Your task to perform on an android device: Open Amazon Image 0: 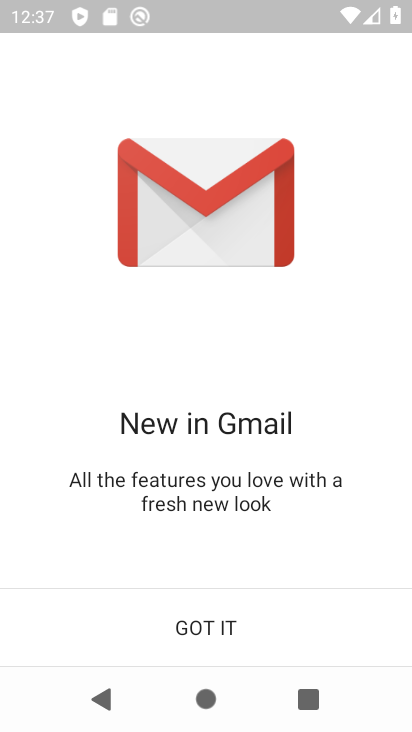
Step 0: press home button
Your task to perform on an android device: Open Amazon Image 1: 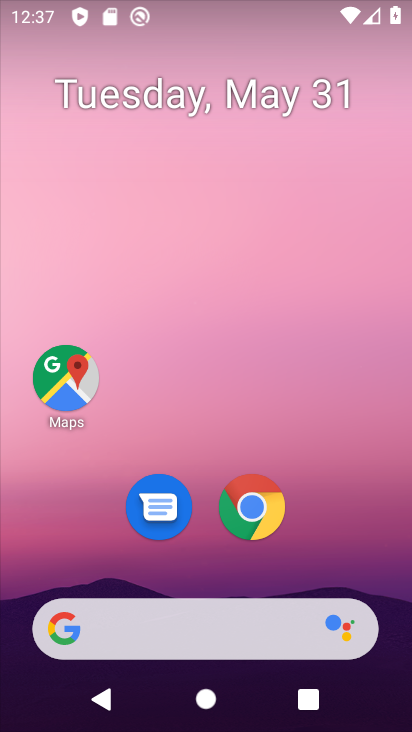
Step 1: click (254, 535)
Your task to perform on an android device: Open Amazon Image 2: 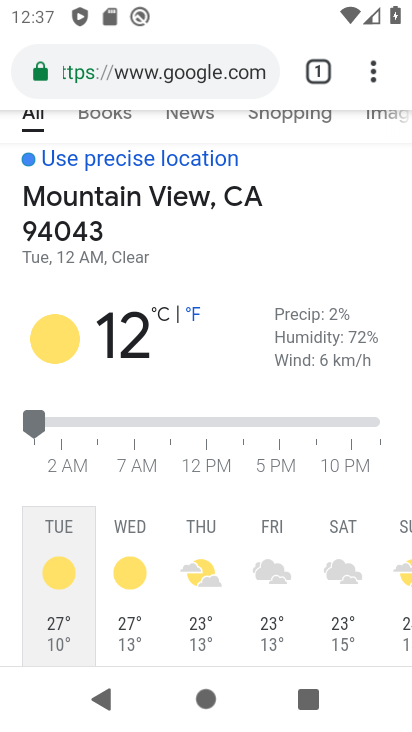
Step 2: drag from (378, 71) to (197, 143)
Your task to perform on an android device: Open Amazon Image 3: 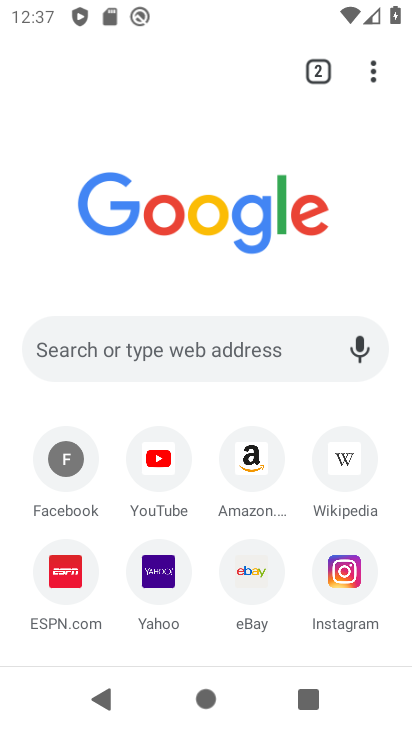
Step 3: click (246, 465)
Your task to perform on an android device: Open Amazon Image 4: 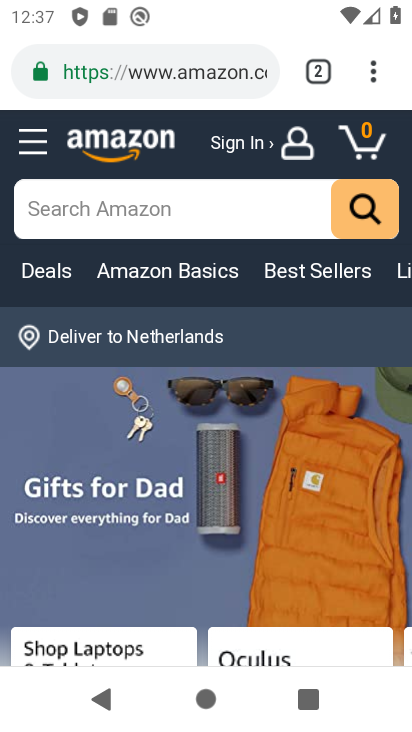
Step 4: task complete